Your task to perform on an android device: Search for custom made wallets on etsy.com Image 0: 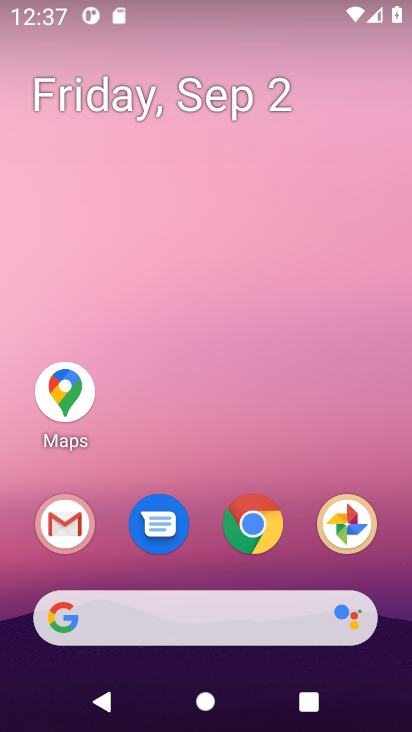
Step 0: press home button
Your task to perform on an android device: Search for custom made wallets on etsy.com Image 1: 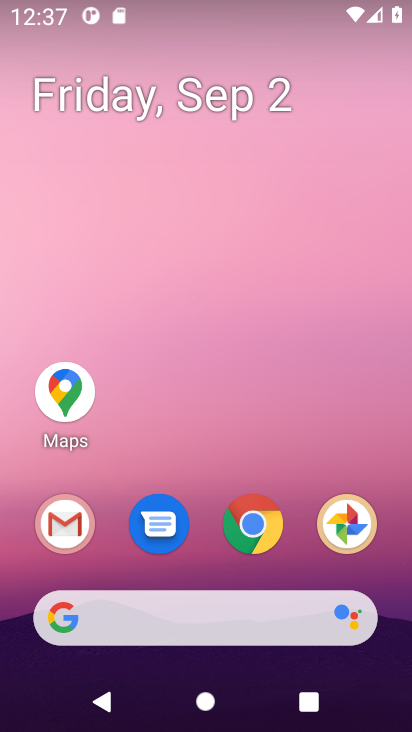
Step 1: click (288, 620)
Your task to perform on an android device: Search for custom made wallets on etsy.com Image 2: 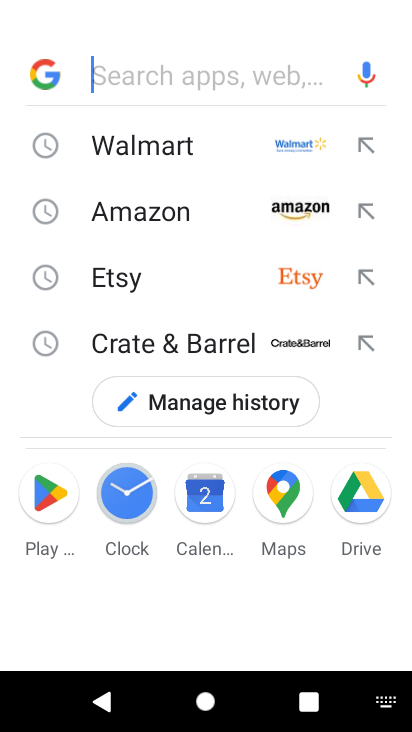
Step 2: click (181, 289)
Your task to perform on an android device: Search for custom made wallets on etsy.com Image 3: 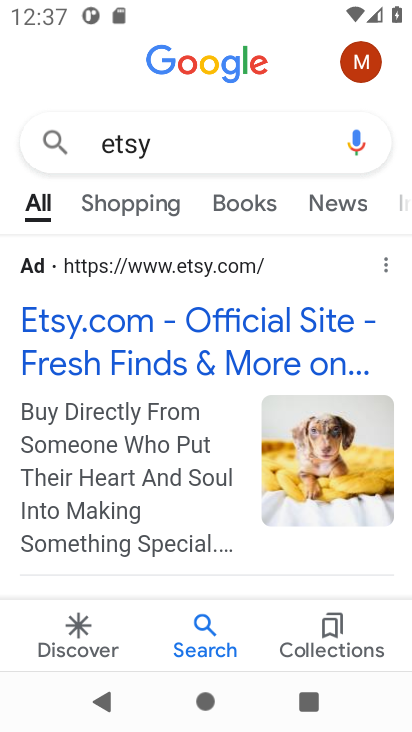
Step 3: click (219, 331)
Your task to perform on an android device: Search for custom made wallets on etsy.com Image 4: 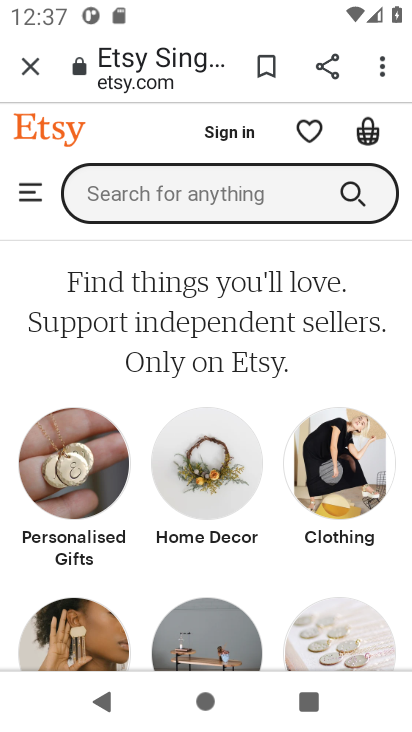
Step 4: click (256, 194)
Your task to perform on an android device: Search for custom made wallets on etsy.com Image 5: 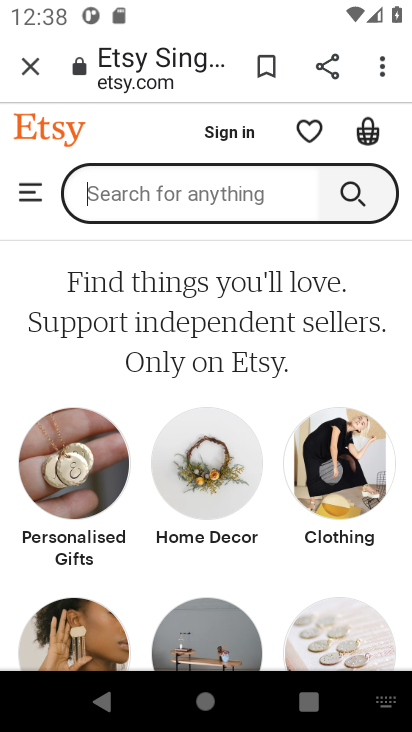
Step 5: press enter
Your task to perform on an android device: Search for custom made wallets on etsy.com Image 6: 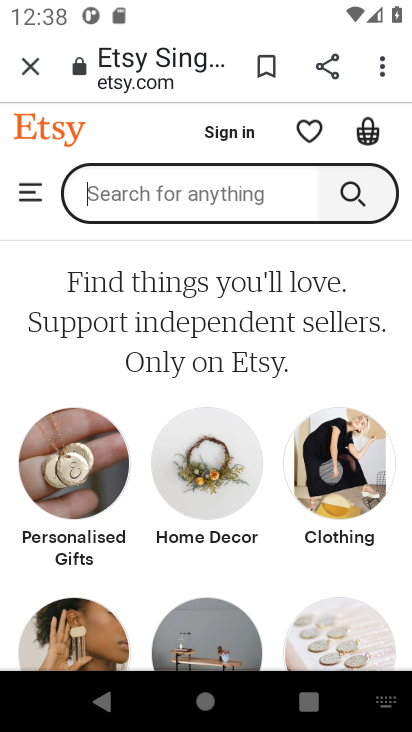
Step 6: type "custom made wallets "
Your task to perform on an android device: Search for custom made wallets on etsy.com Image 7: 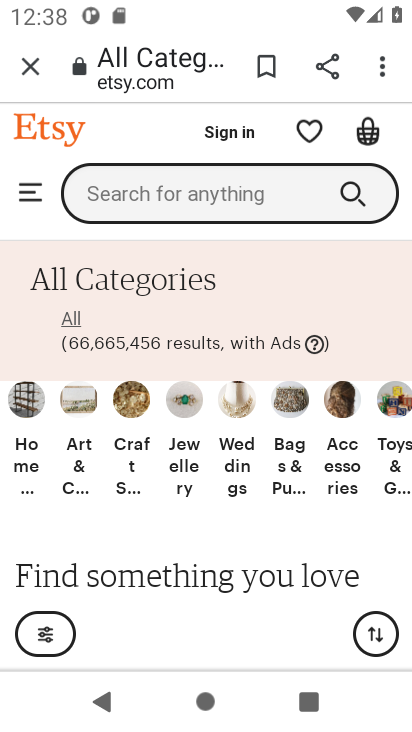
Step 7: click (286, 192)
Your task to perform on an android device: Search for custom made wallets on etsy.com Image 8: 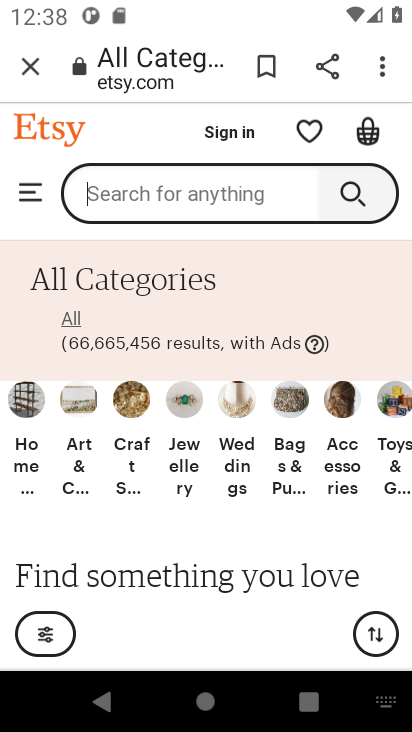
Step 8: type "custom made wallets "
Your task to perform on an android device: Search for custom made wallets on etsy.com Image 9: 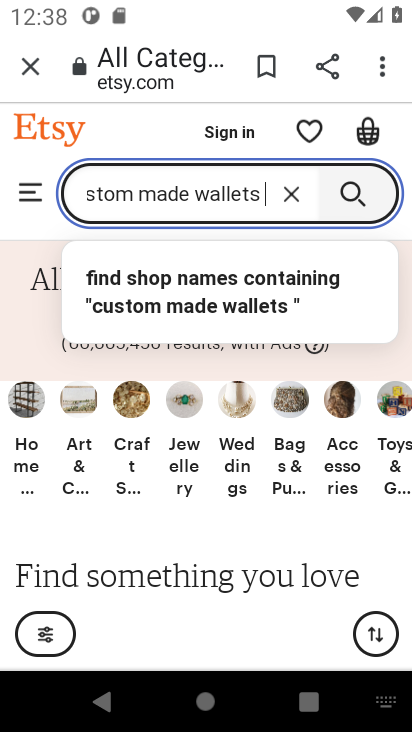
Step 9: click (349, 186)
Your task to perform on an android device: Search for custom made wallets on etsy.com Image 10: 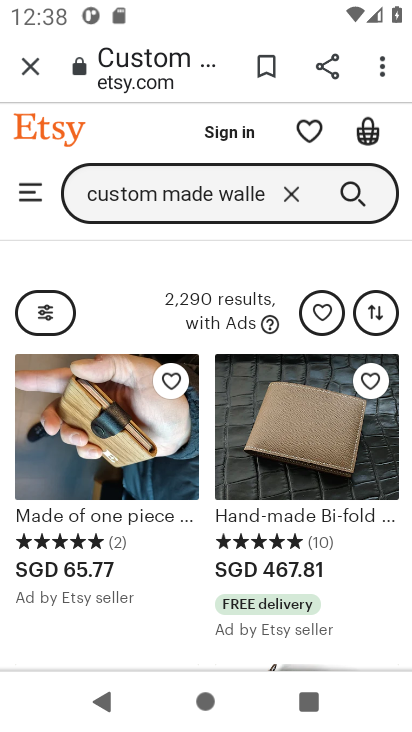
Step 10: task complete